Your task to perform on an android device: Open eBay Image 0: 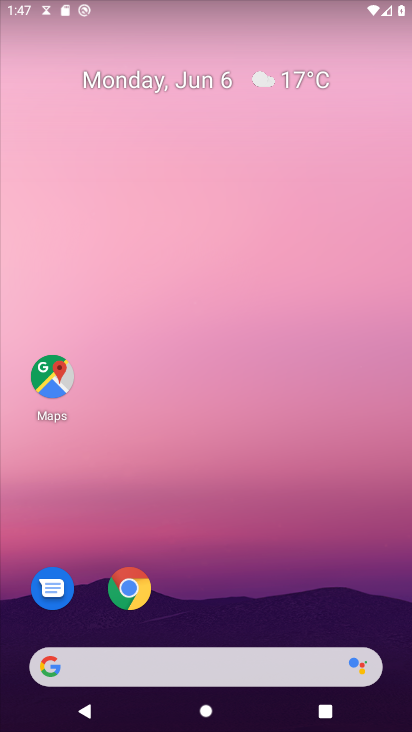
Step 0: click (130, 594)
Your task to perform on an android device: Open eBay Image 1: 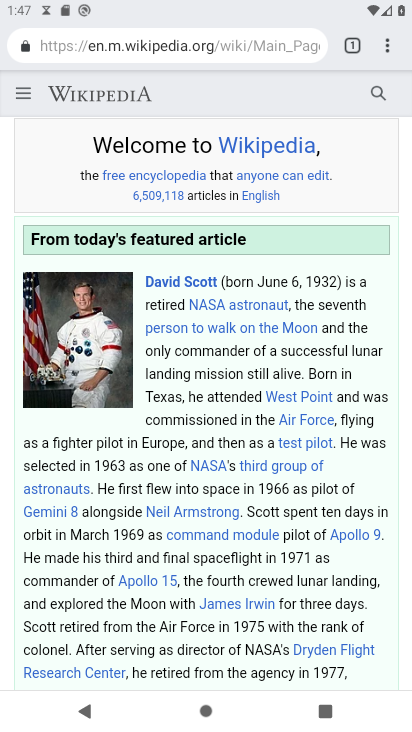
Step 1: press back button
Your task to perform on an android device: Open eBay Image 2: 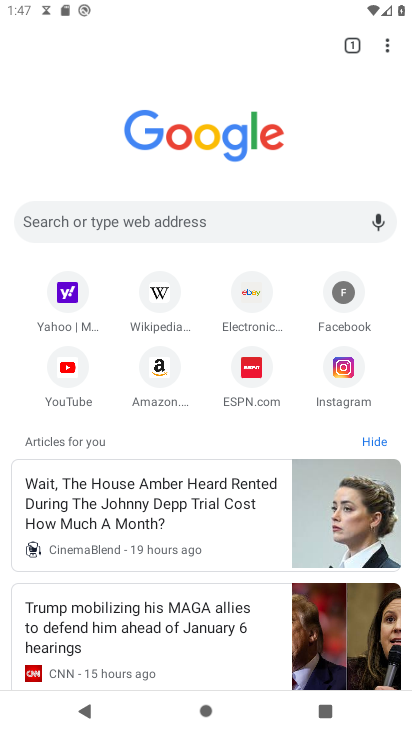
Step 2: click (264, 302)
Your task to perform on an android device: Open eBay Image 3: 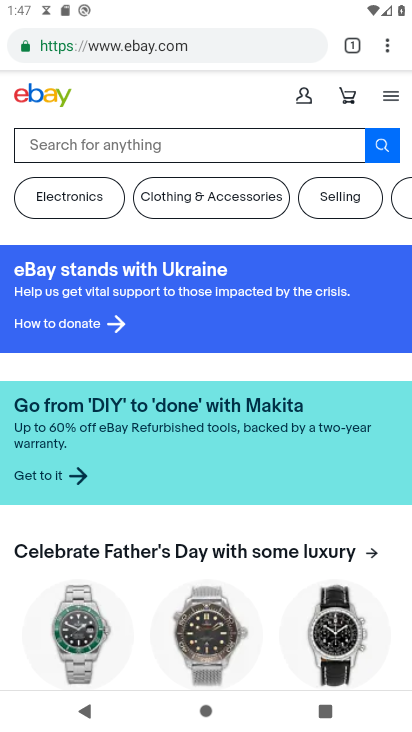
Step 3: task complete